Your task to perform on an android device: create a new album in the google photos Image 0: 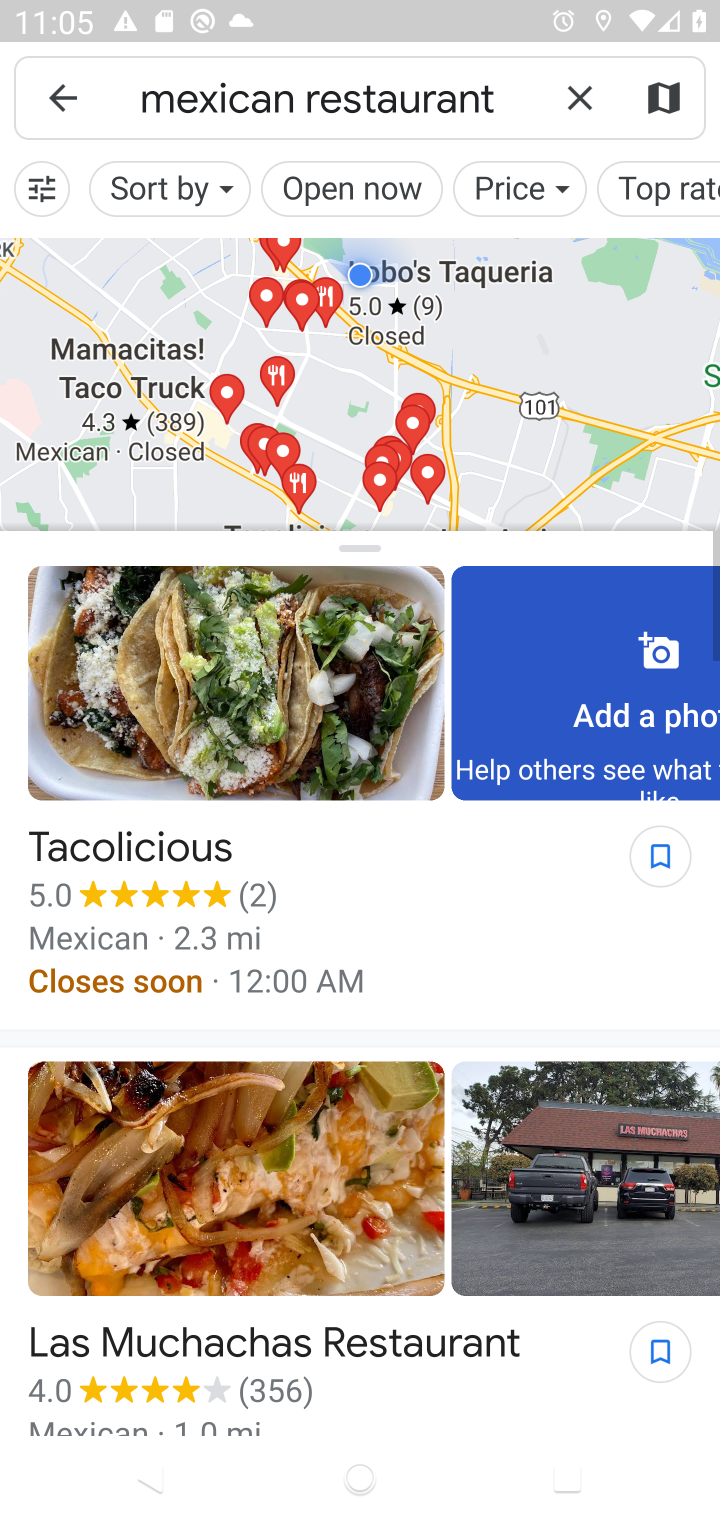
Step 0: press home button
Your task to perform on an android device: create a new album in the google photos Image 1: 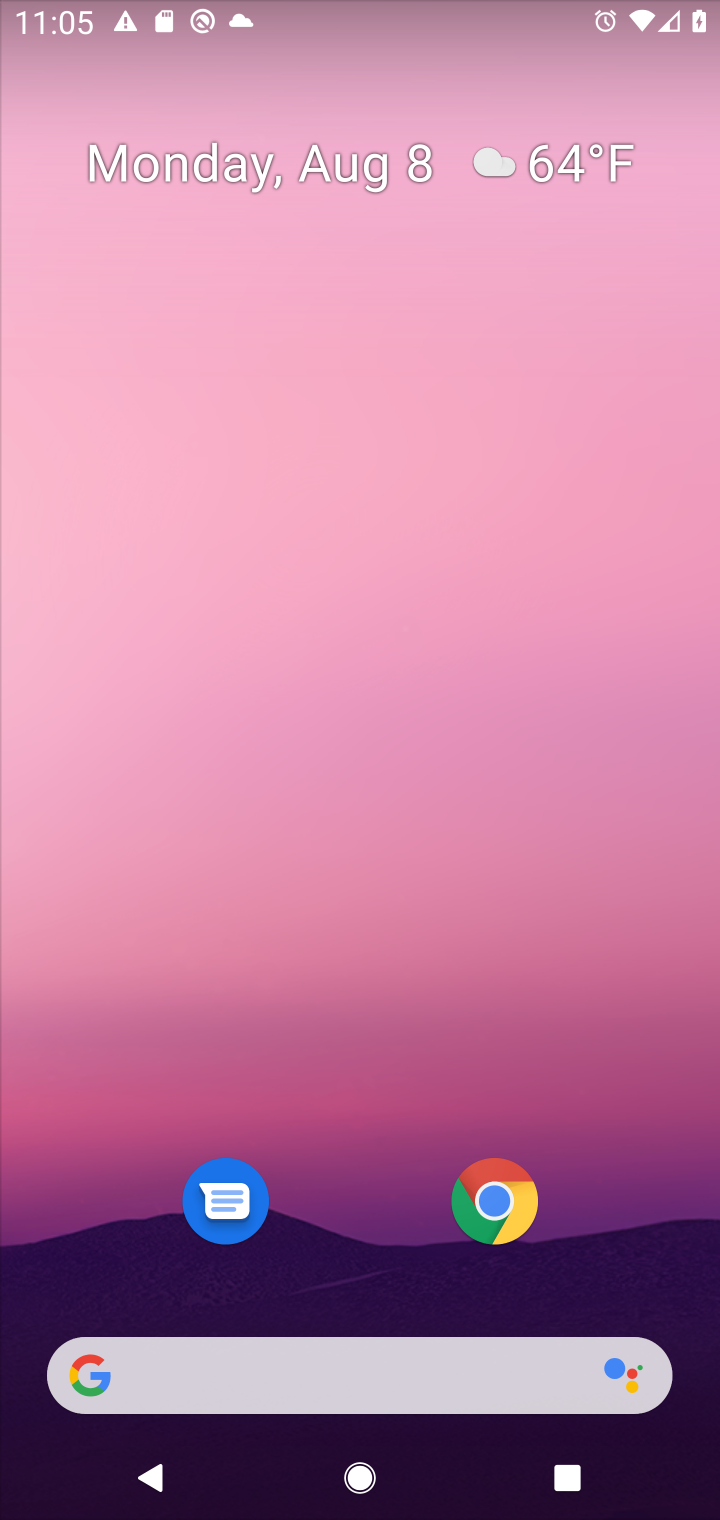
Step 1: drag from (608, 1200) to (611, 326)
Your task to perform on an android device: create a new album in the google photos Image 2: 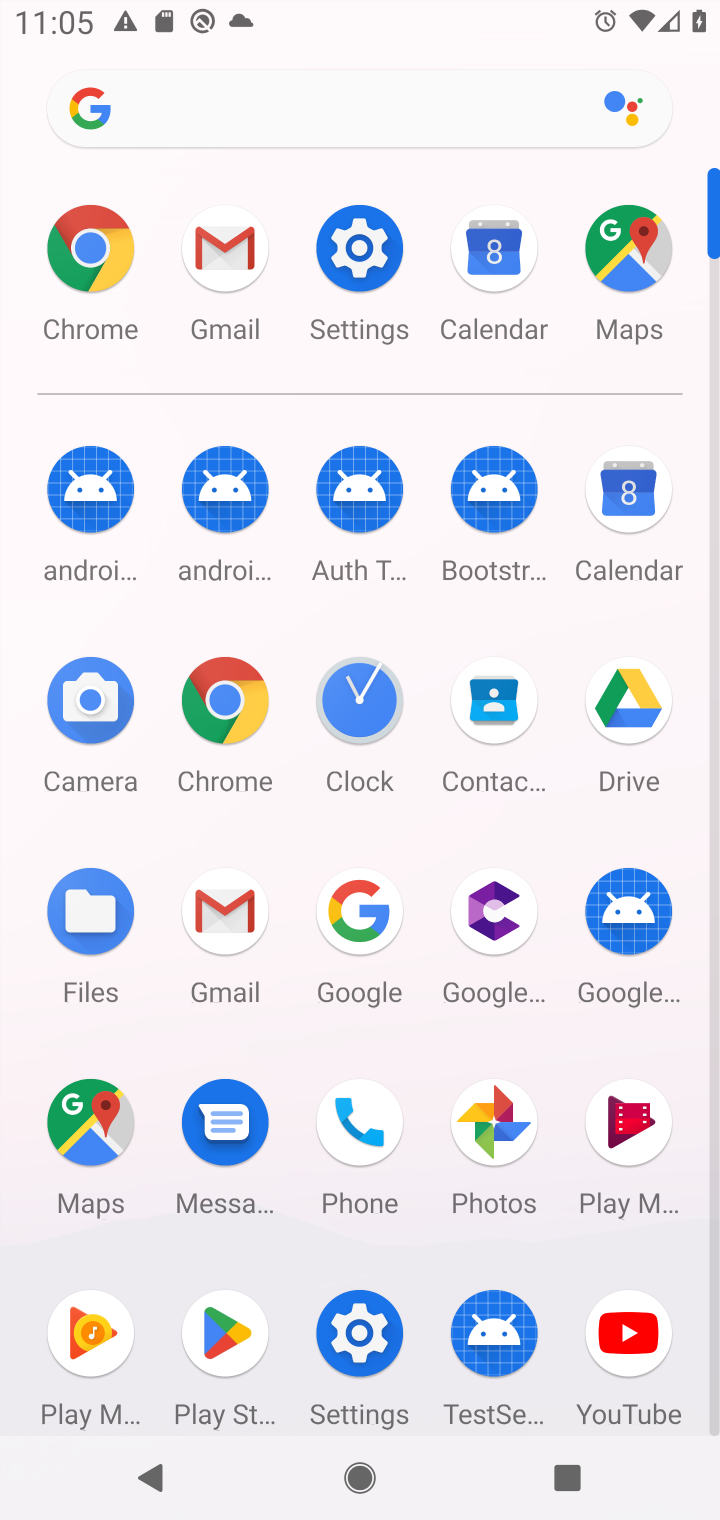
Step 2: click (494, 1139)
Your task to perform on an android device: create a new album in the google photos Image 3: 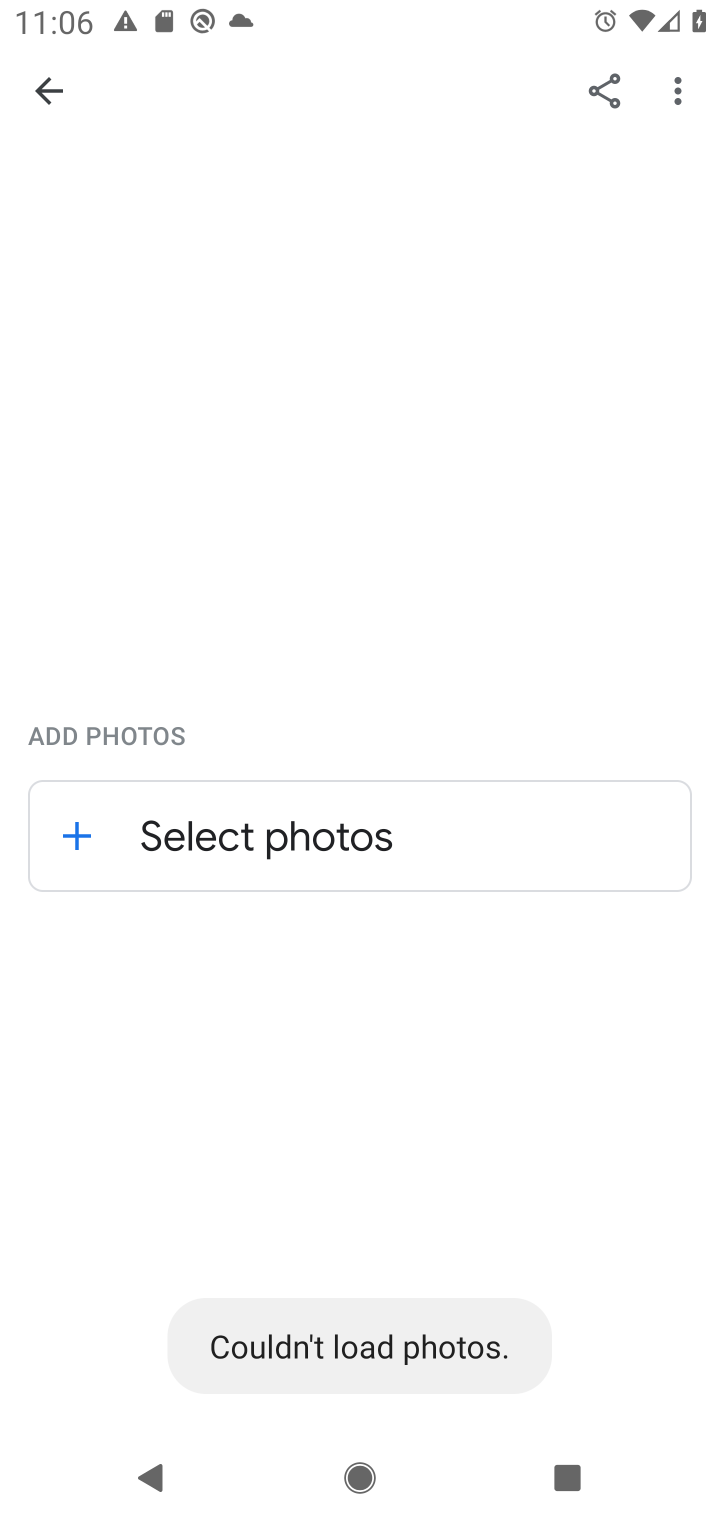
Step 3: click (78, 829)
Your task to perform on an android device: create a new album in the google photos Image 4: 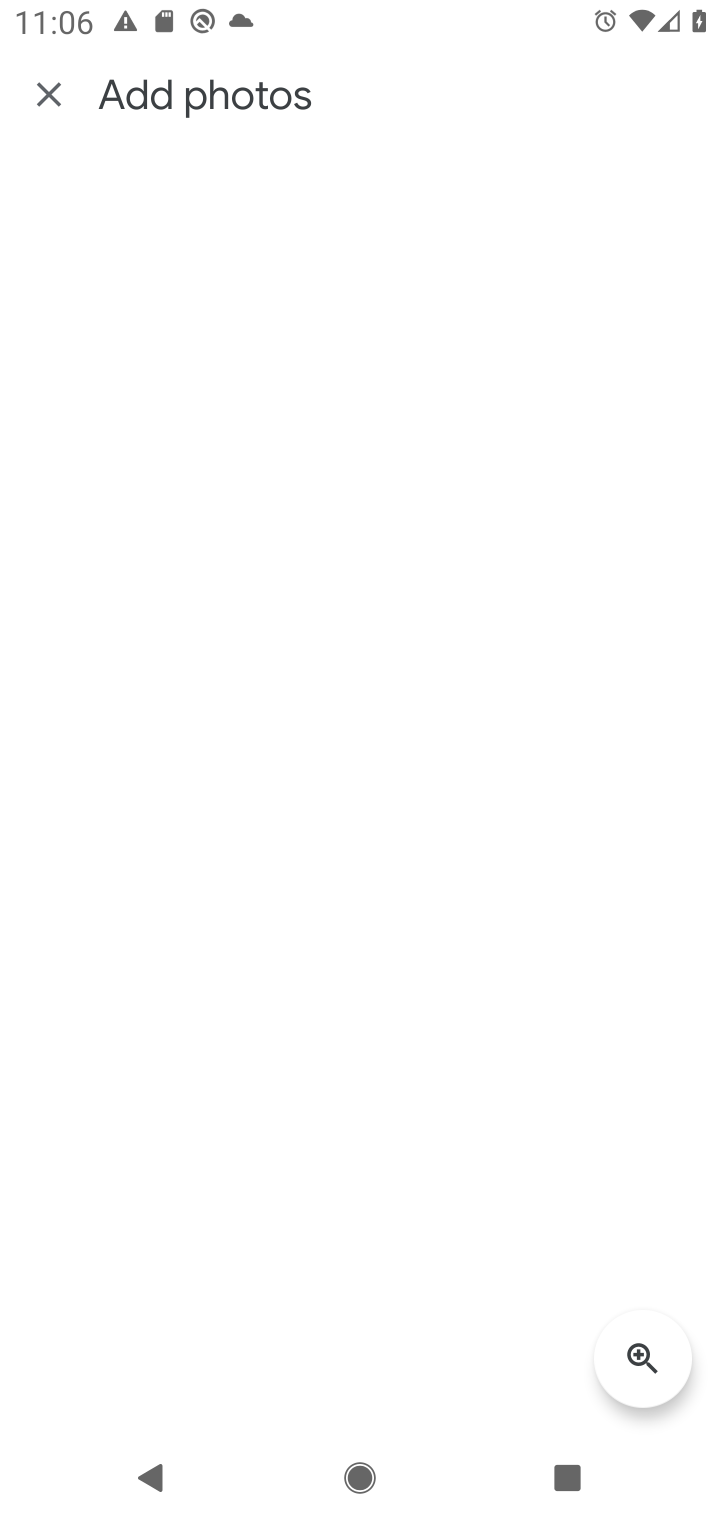
Step 4: task complete